Your task to perform on an android device: turn on priority inbox in the gmail app Image 0: 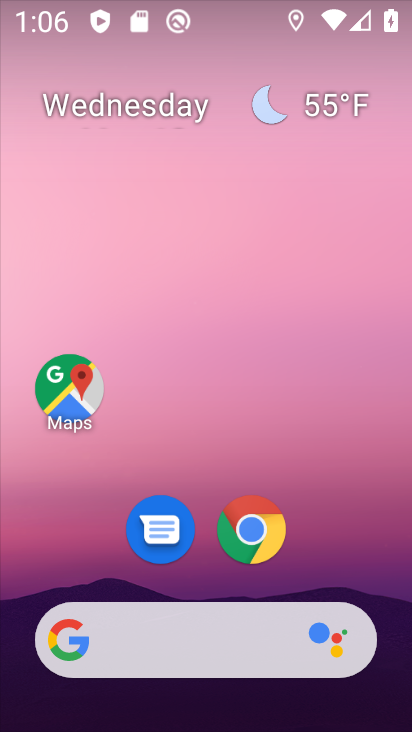
Step 0: drag from (257, 723) to (251, 119)
Your task to perform on an android device: turn on priority inbox in the gmail app Image 1: 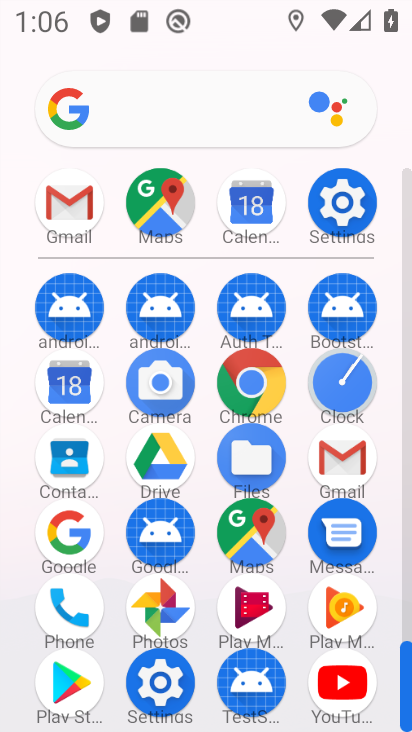
Step 1: click (348, 457)
Your task to perform on an android device: turn on priority inbox in the gmail app Image 2: 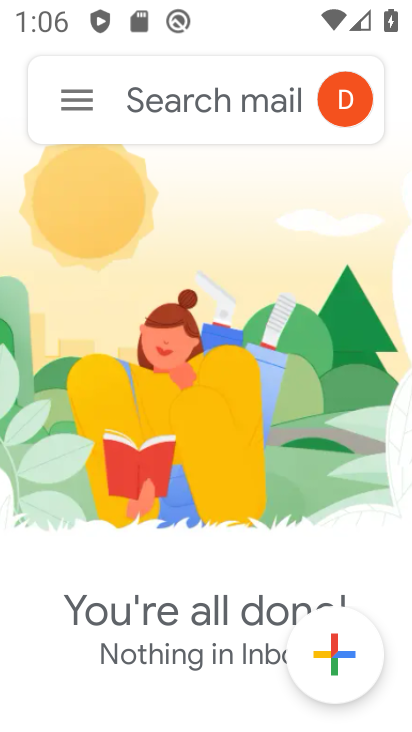
Step 2: click (72, 92)
Your task to perform on an android device: turn on priority inbox in the gmail app Image 3: 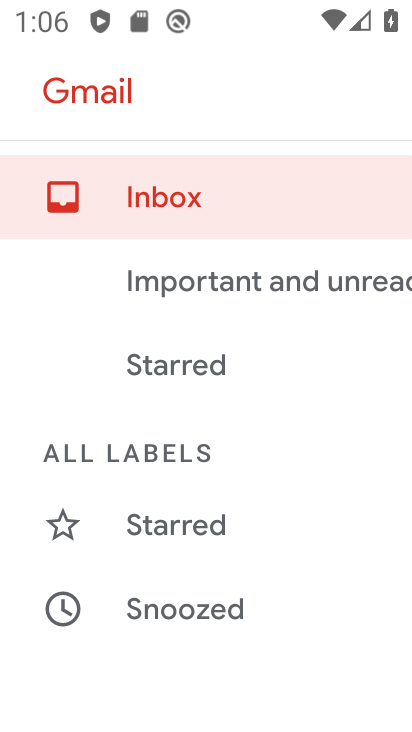
Step 3: drag from (154, 608) to (198, 295)
Your task to perform on an android device: turn on priority inbox in the gmail app Image 4: 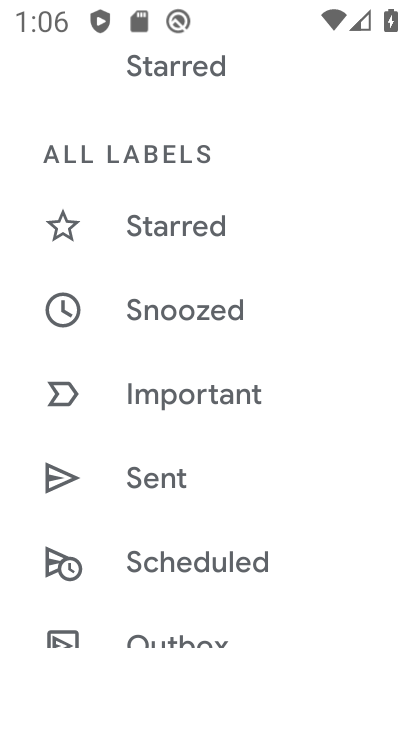
Step 4: drag from (155, 617) to (168, 307)
Your task to perform on an android device: turn on priority inbox in the gmail app Image 5: 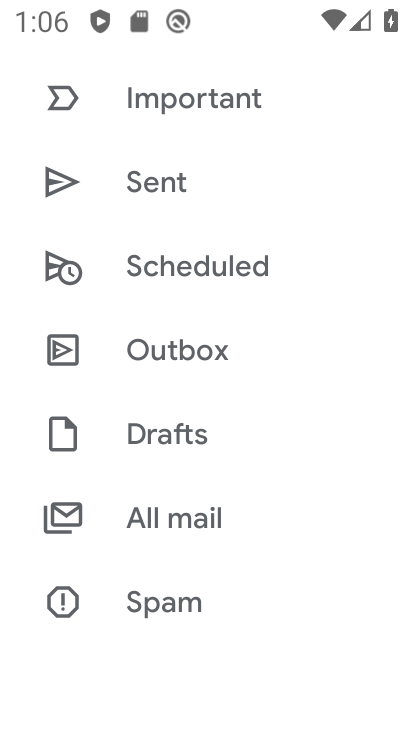
Step 5: drag from (182, 639) to (197, 272)
Your task to perform on an android device: turn on priority inbox in the gmail app Image 6: 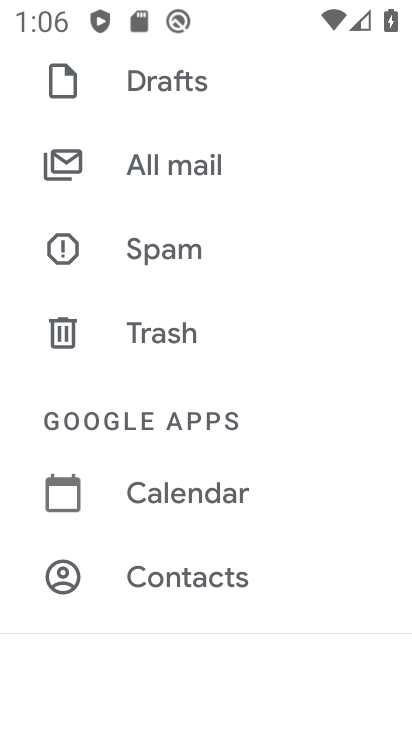
Step 6: drag from (184, 613) to (188, 215)
Your task to perform on an android device: turn on priority inbox in the gmail app Image 7: 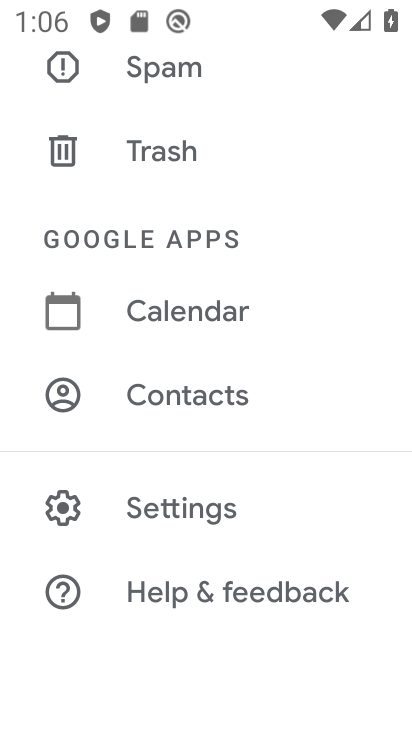
Step 7: click (174, 506)
Your task to perform on an android device: turn on priority inbox in the gmail app Image 8: 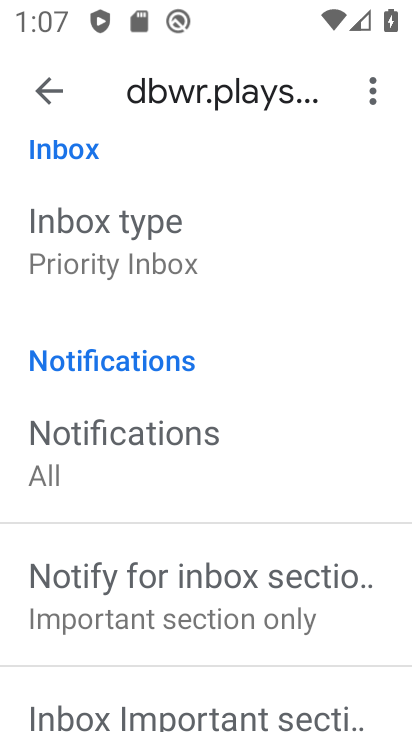
Step 8: task complete